Your task to perform on an android device: Go to Google Image 0: 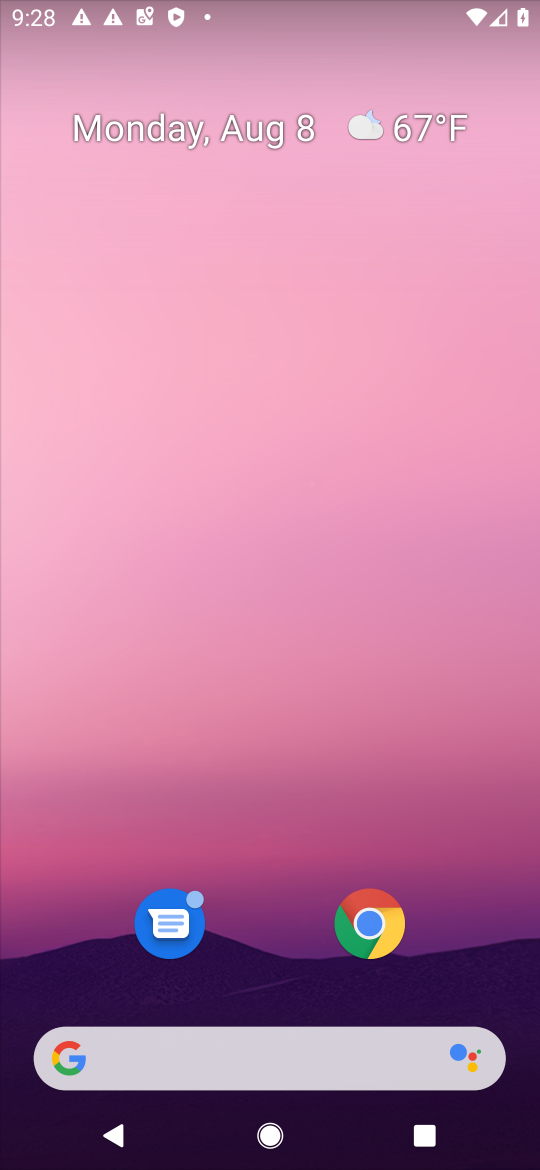
Step 0: click (178, 1053)
Your task to perform on an android device: Go to Google Image 1: 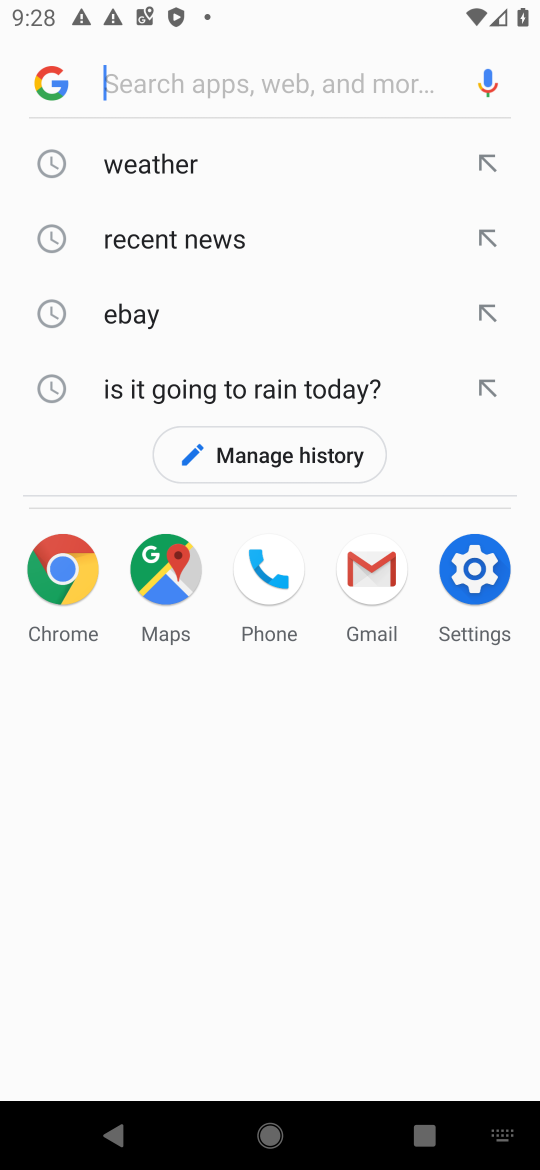
Step 1: task complete